Your task to perform on an android device: Find coffee shops on Maps Image 0: 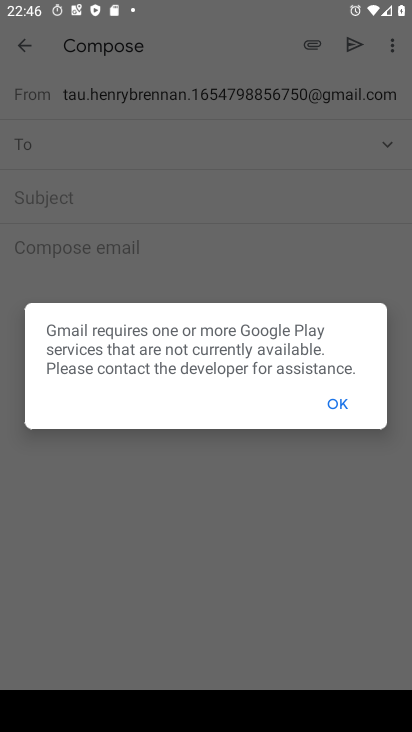
Step 0: click (343, 401)
Your task to perform on an android device: Find coffee shops on Maps Image 1: 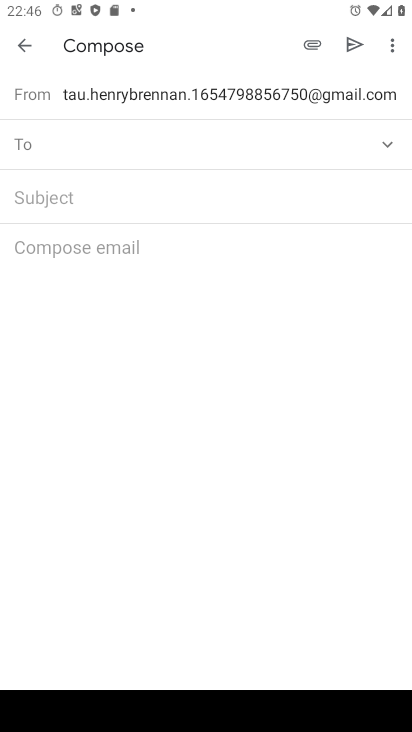
Step 1: press back button
Your task to perform on an android device: Find coffee shops on Maps Image 2: 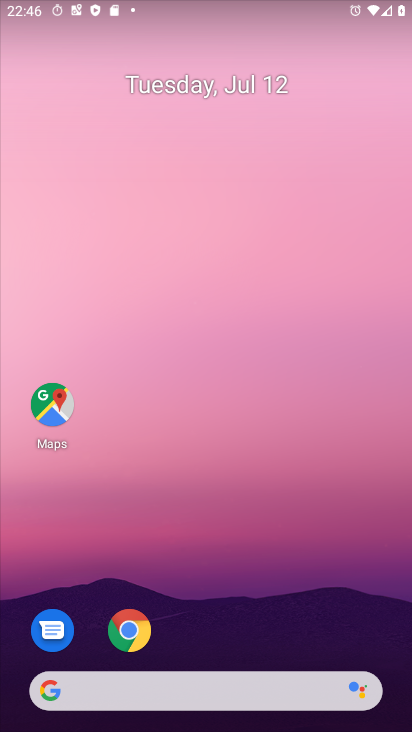
Step 2: click (40, 405)
Your task to perform on an android device: Find coffee shops on Maps Image 3: 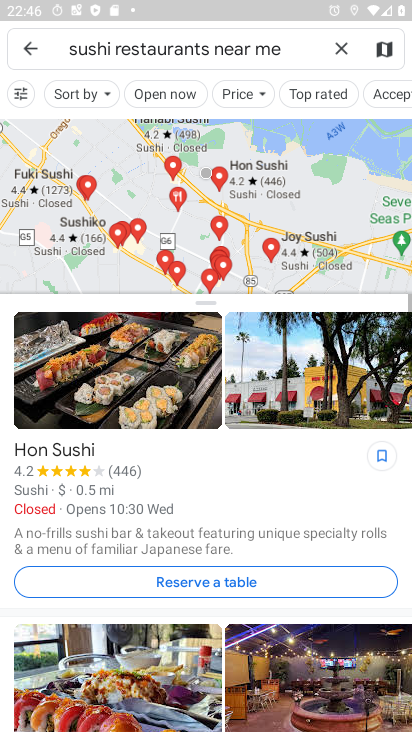
Step 3: click (340, 44)
Your task to perform on an android device: Find coffee shops on Maps Image 4: 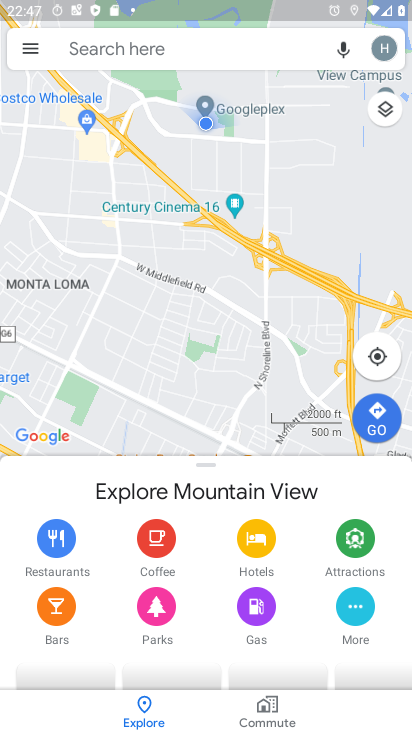
Step 4: click (117, 51)
Your task to perform on an android device: Find coffee shops on Maps Image 5: 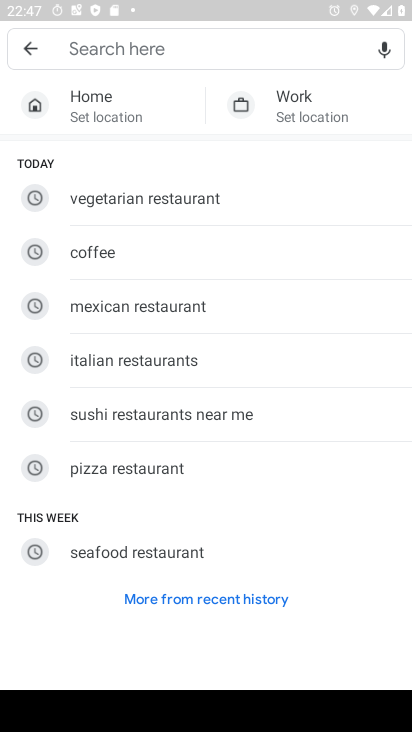
Step 5: click (108, 249)
Your task to perform on an android device: Find coffee shops on Maps Image 6: 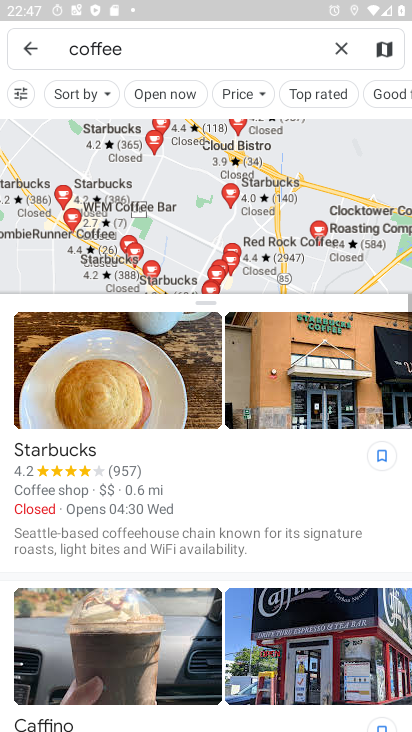
Step 6: task complete